Your task to perform on an android device: empty trash in the gmail app Image 0: 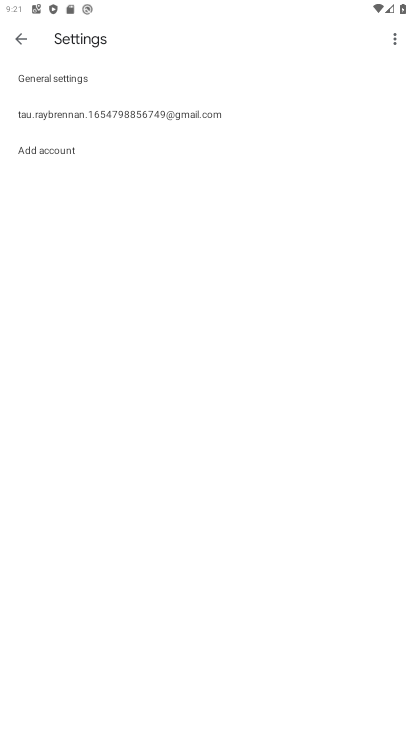
Step 0: drag from (316, 516) to (302, 215)
Your task to perform on an android device: empty trash in the gmail app Image 1: 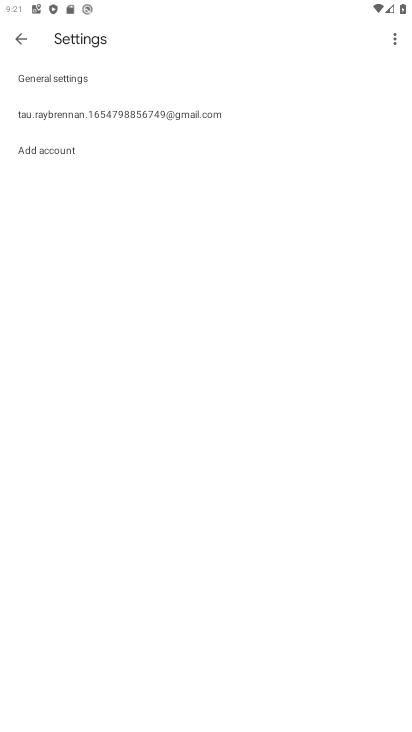
Step 1: drag from (124, 444) to (200, 229)
Your task to perform on an android device: empty trash in the gmail app Image 2: 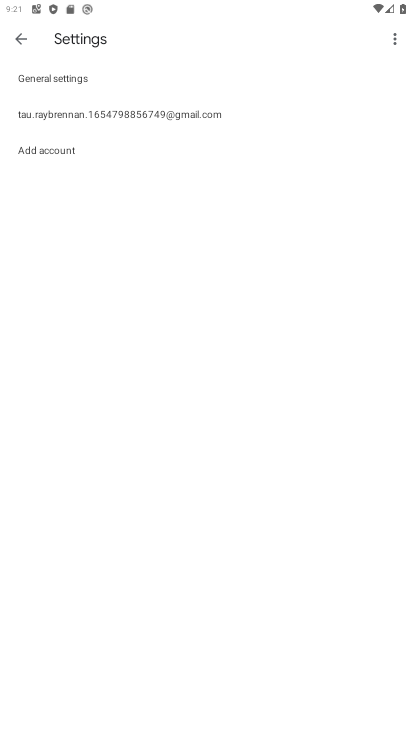
Step 2: click (22, 49)
Your task to perform on an android device: empty trash in the gmail app Image 3: 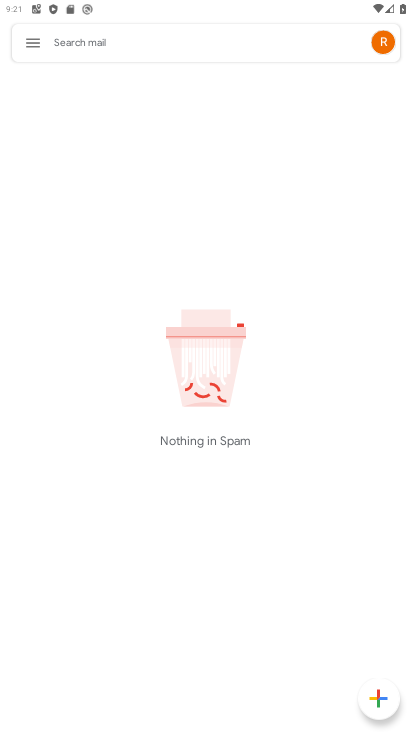
Step 3: click (38, 45)
Your task to perform on an android device: empty trash in the gmail app Image 4: 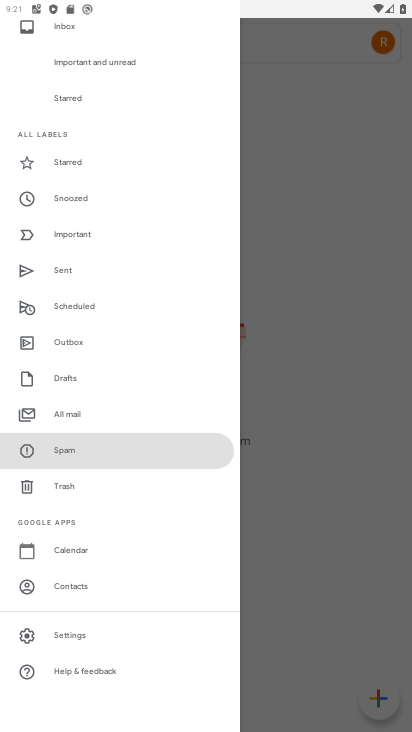
Step 4: click (71, 476)
Your task to perform on an android device: empty trash in the gmail app Image 5: 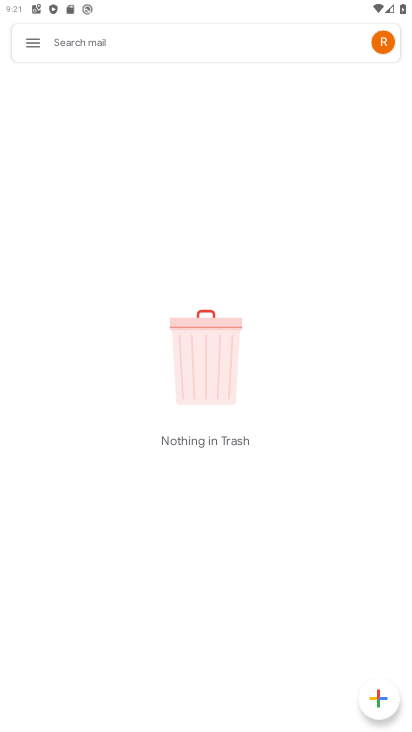
Step 5: task complete